Your task to perform on an android device: Open my contact list Image 0: 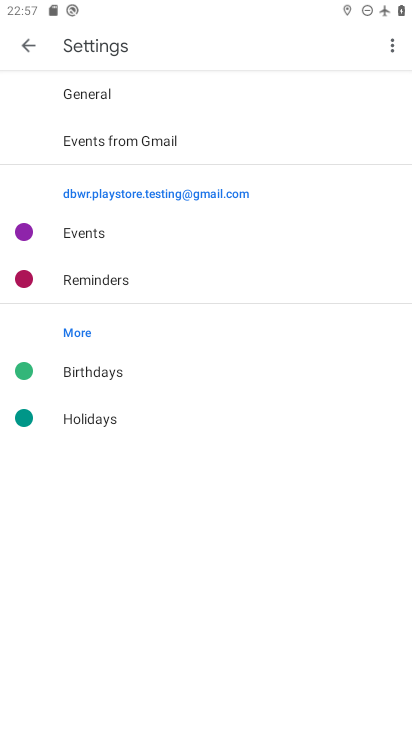
Step 0: press home button
Your task to perform on an android device: Open my contact list Image 1: 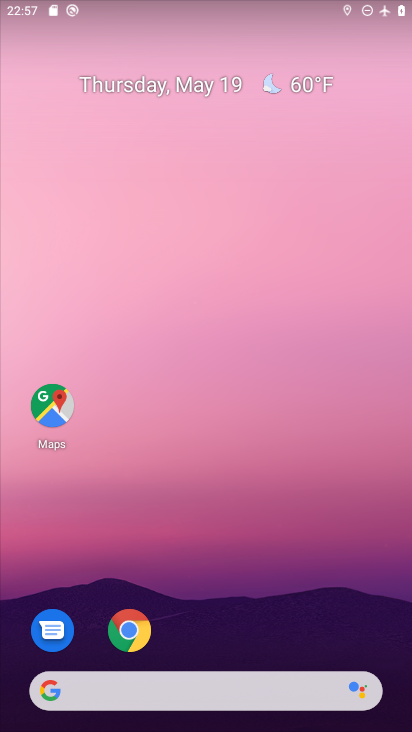
Step 1: drag from (250, 551) to (211, 6)
Your task to perform on an android device: Open my contact list Image 2: 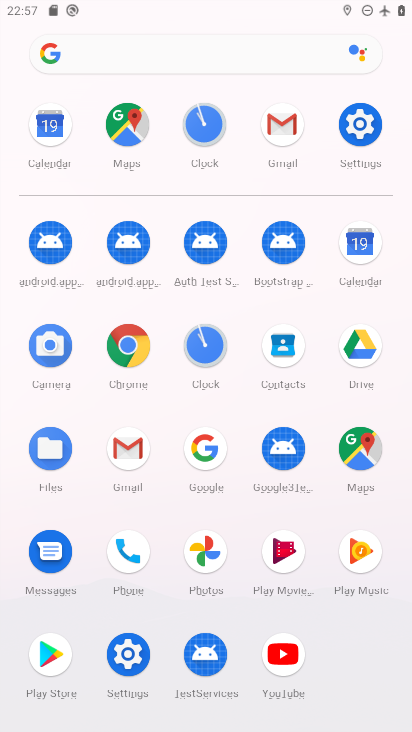
Step 2: click (277, 345)
Your task to perform on an android device: Open my contact list Image 3: 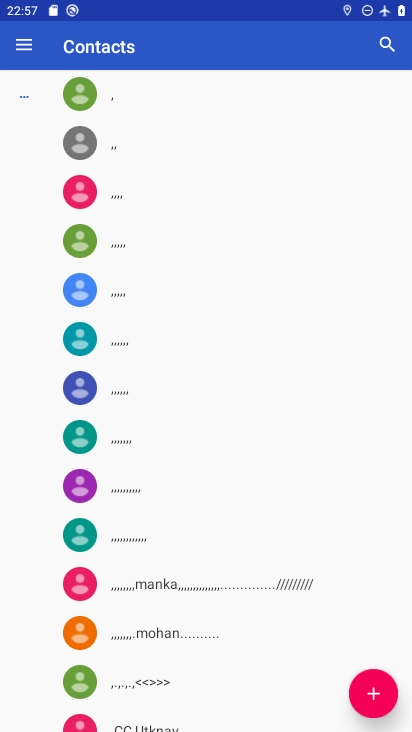
Step 3: click (370, 696)
Your task to perform on an android device: Open my contact list Image 4: 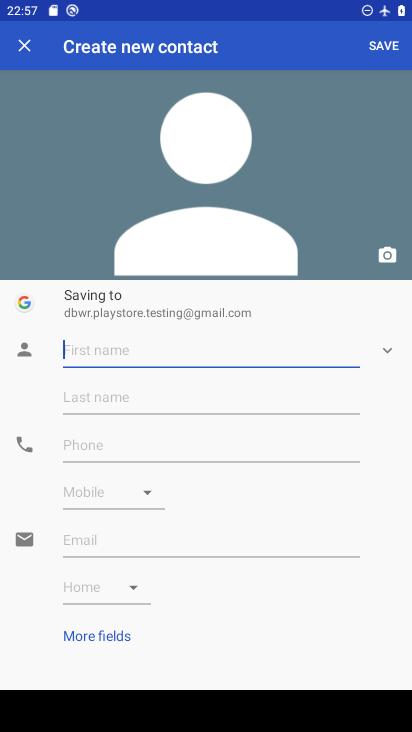
Step 4: type "cvbn"
Your task to perform on an android device: Open my contact list Image 5: 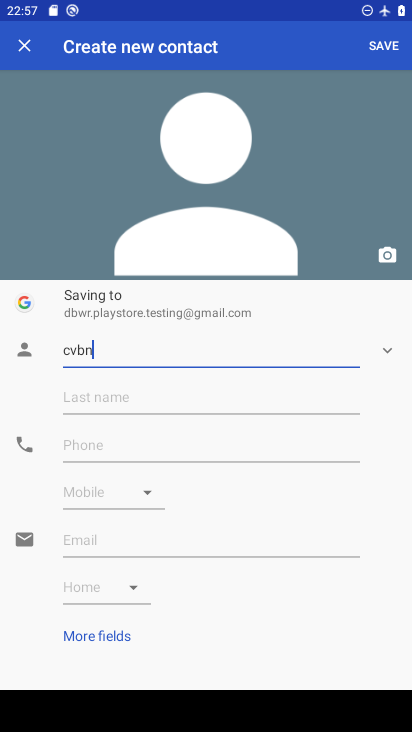
Step 5: click (106, 428)
Your task to perform on an android device: Open my contact list Image 6: 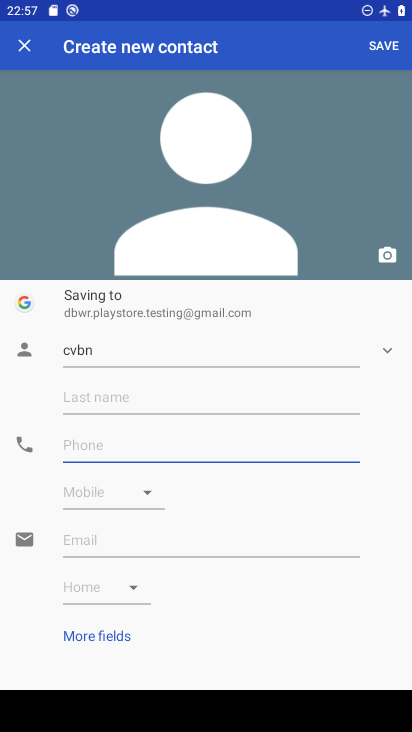
Step 6: type "234567"
Your task to perform on an android device: Open my contact list Image 7: 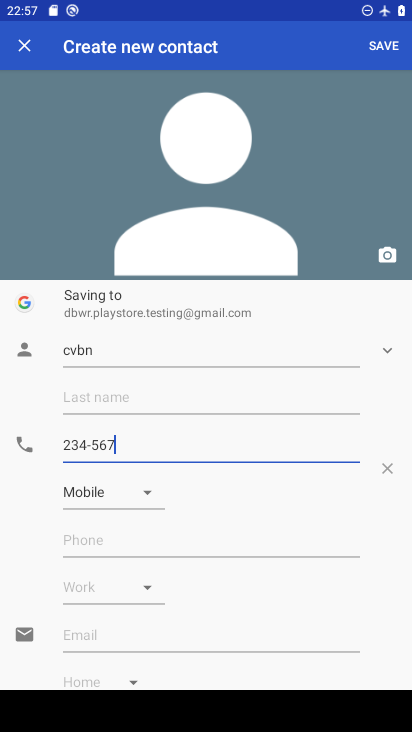
Step 7: click (371, 43)
Your task to perform on an android device: Open my contact list Image 8: 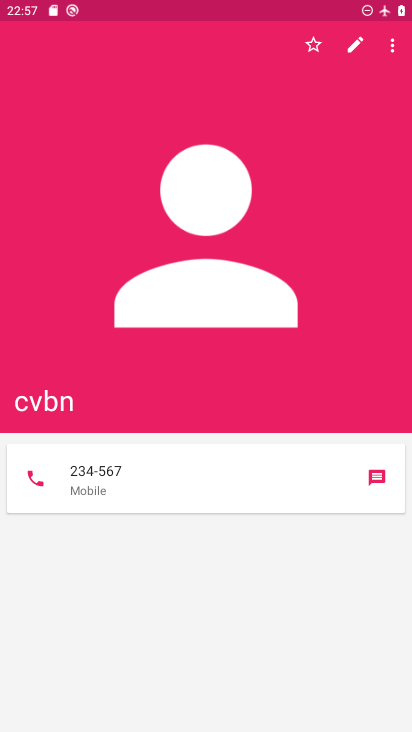
Step 8: task complete